Your task to perform on an android device: toggle priority inbox in the gmail app Image 0: 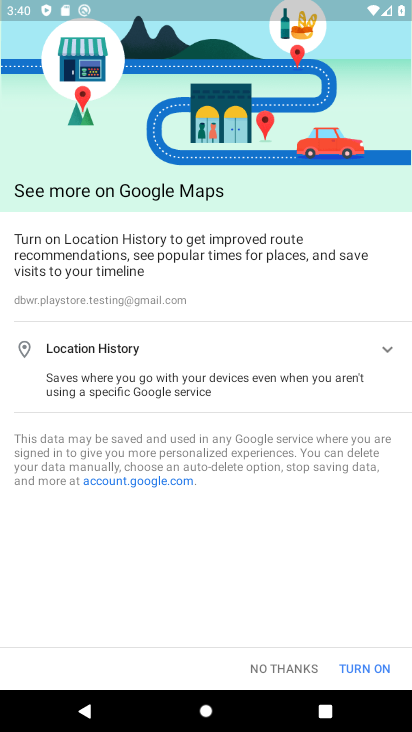
Step 0: press home button
Your task to perform on an android device: toggle priority inbox in the gmail app Image 1: 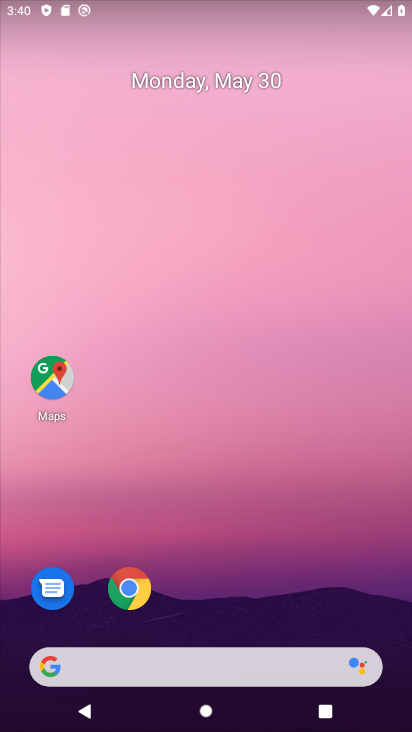
Step 1: drag from (377, 619) to (348, 74)
Your task to perform on an android device: toggle priority inbox in the gmail app Image 2: 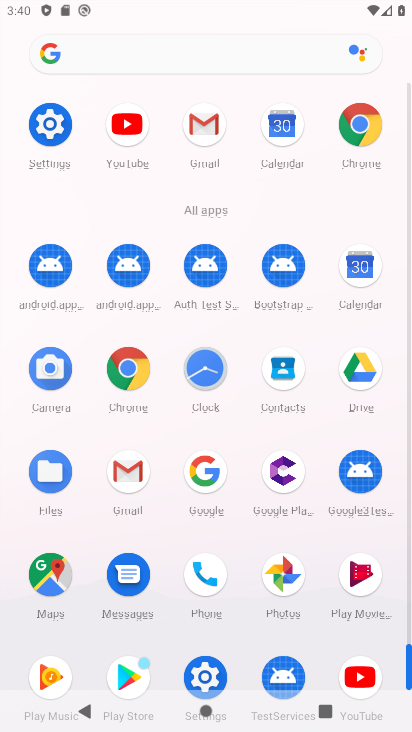
Step 2: click (129, 471)
Your task to perform on an android device: toggle priority inbox in the gmail app Image 3: 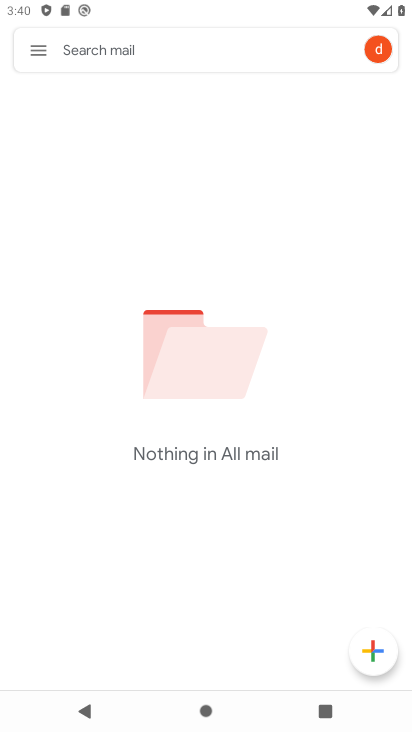
Step 3: click (38, 48)
Your task to perform on an android device: toggle priority inbox in the gmail app Image 4: 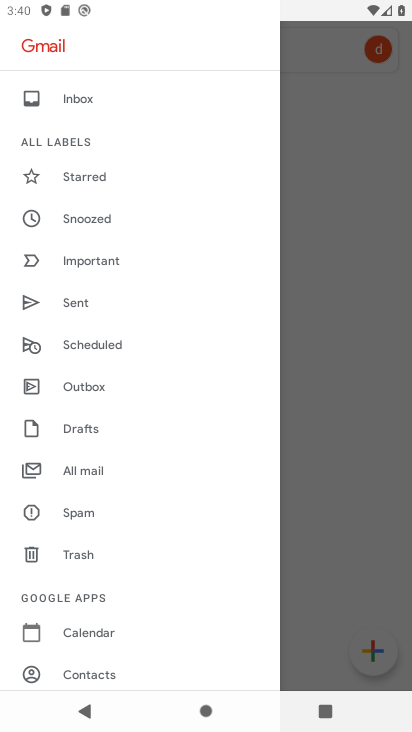
Step 4: drag from (185, 605) to (154, 179)
Your task to perform on an android device: toggle priority inbox in the gmail app Image 5: 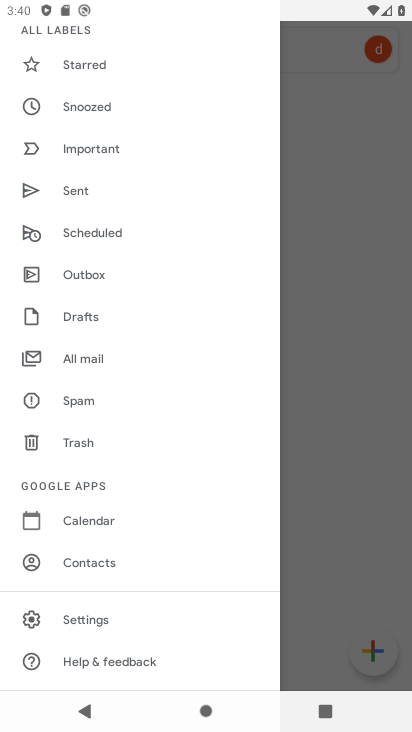
Step 5: click (81, 609)
Your task to perform on an android device: toggle priority inbox in the gmail app Image 6: 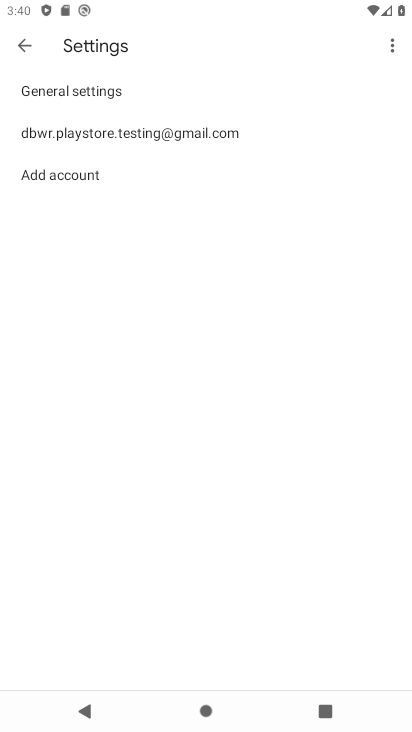
Step 6: click (134, 130)
Your task to perform on an android device: toggle priority inbox in the gmail app Image 7: 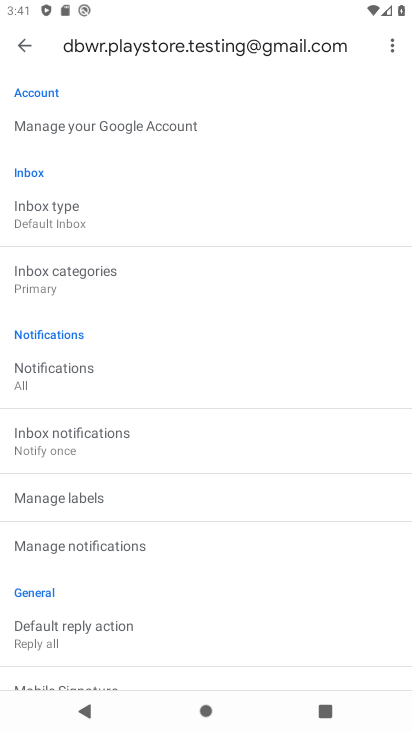
Step 7: click (61, 217)
Your task to perform on an android device: toggle priority inbox in the gmail app Image 8: 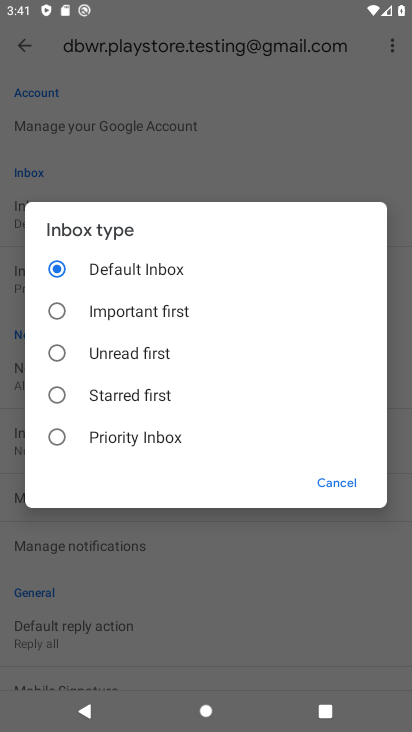
Step 8: click (62, 439)
Your task to perform on an android device: toggle priority inbox in the gmail app Image 9: 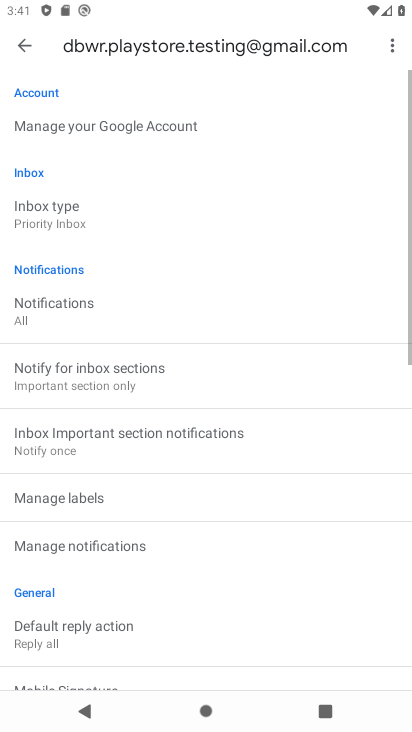
Step 9: task complete